Your task to perform on an android device: Find coffee shops on Maps Image 0: 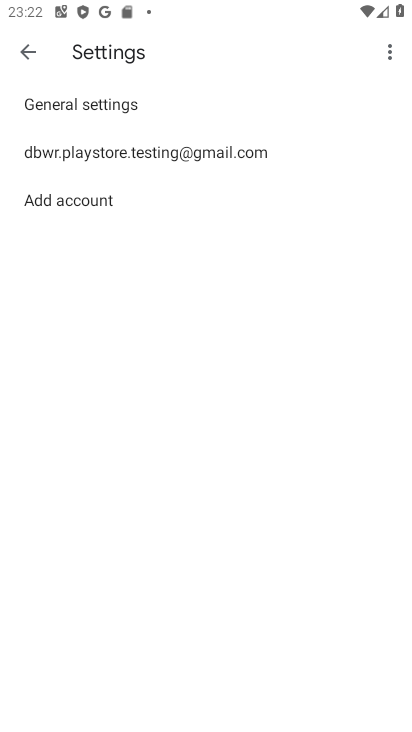
Step 0: press home button
Your task to perform on an android device: Find coffee shops on Maps Image 1: 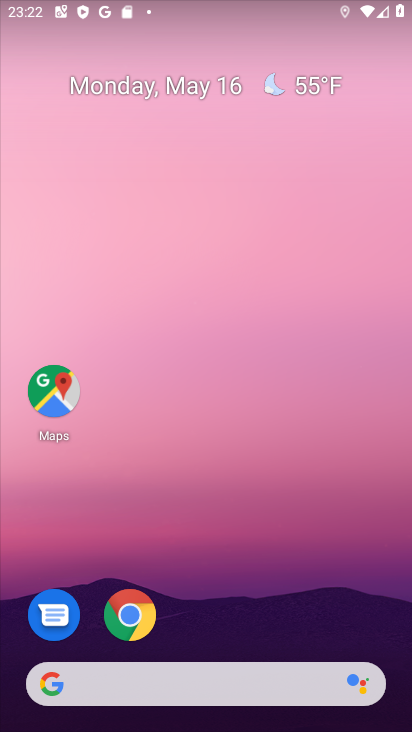
Step 1: drag from (205, 640) to (156, 70)
Your task to perform on an android device: Find coffee shops on Maps Image 2: 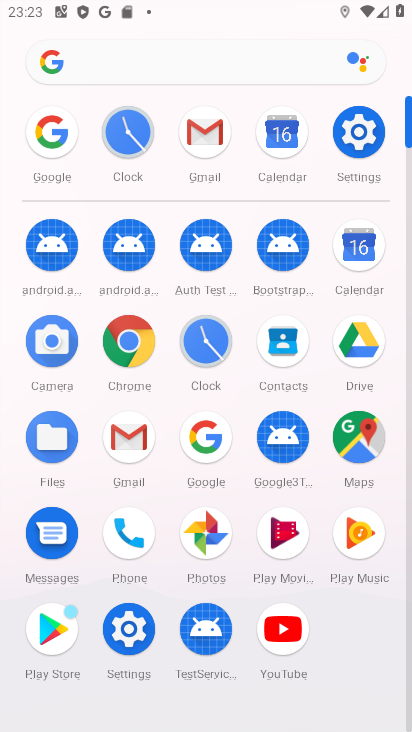
Step 2: click (359, 434)
Your task to perform on an android device: Find coffee shops on Maps Image 3: 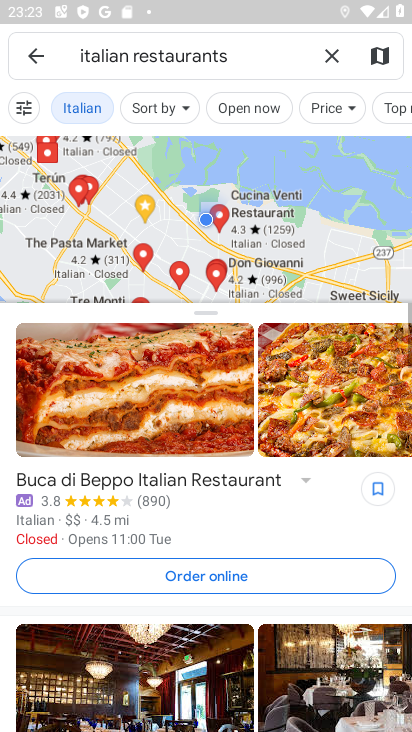
Step 3: click (316, 56)
Your task to perform on an android device: Find coffee shops on Maps Image 4: 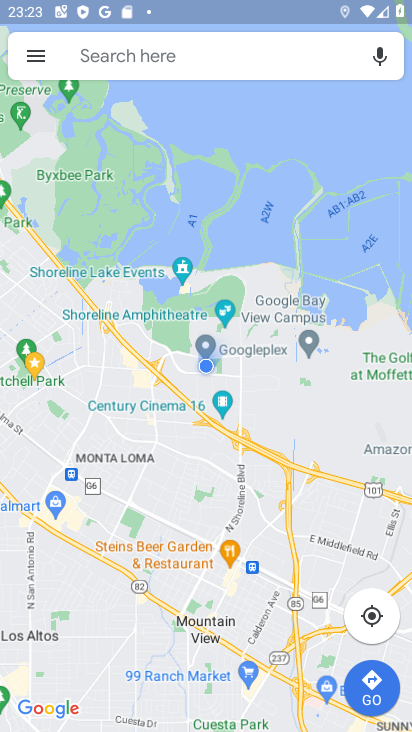
Step 4: click (200, 63)
Your task to perform on an android device: Find coffee shops on Maps Image 5: 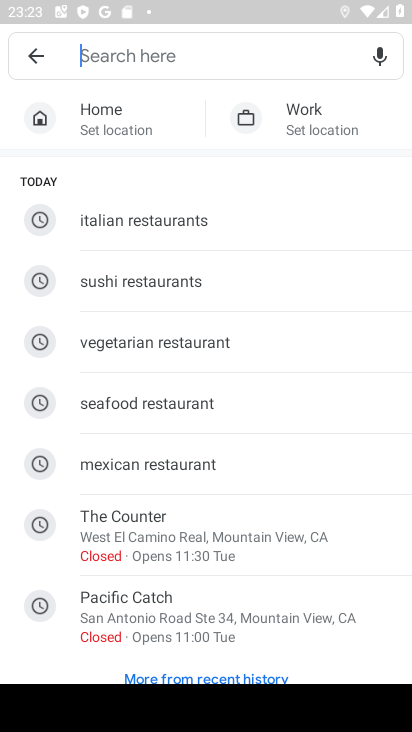
Step 5: type "coffee"
Your task to perform on an android device: Find coffee shops on Maps Image 6: 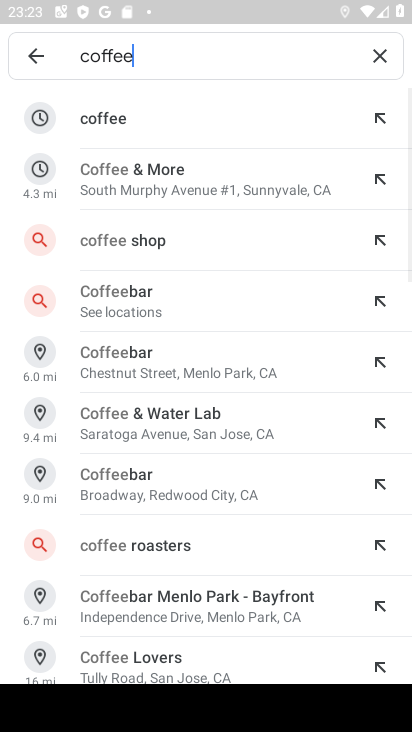
Step 6: click (256, 131)
Your task to perform on an android device: Find coffee shops on Maps Image 7: 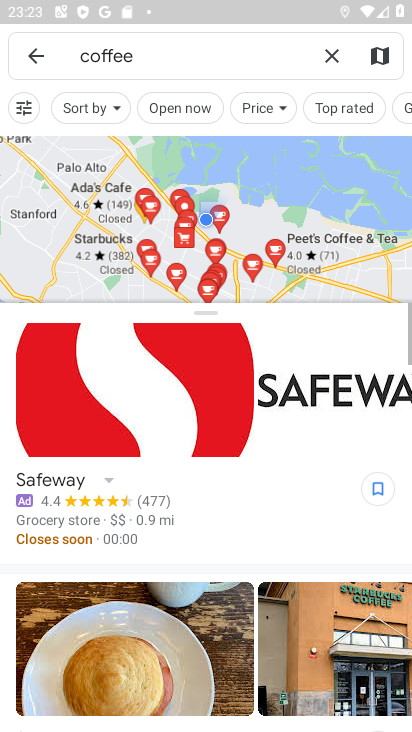
Step 7: task complete